Your task to perform on an android device: change the clock style Image 0: 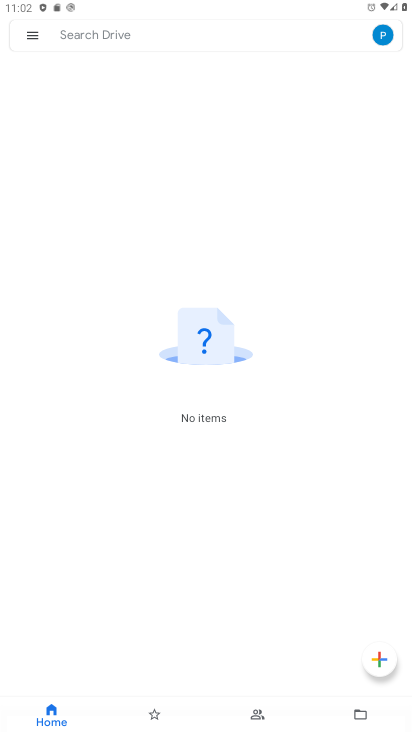
Step 0: press home button
Your task to perform on an android device: change the clock style Image 1: 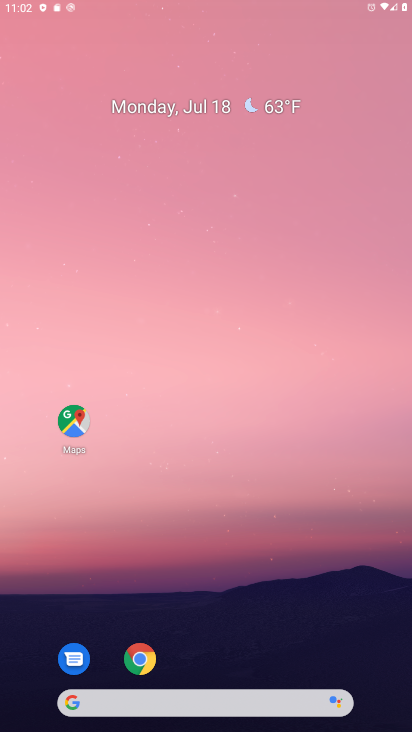
Step 1: drag from (214, 671) to (286, 133)
Your task to perform on an android device: change the clock style Image 2: 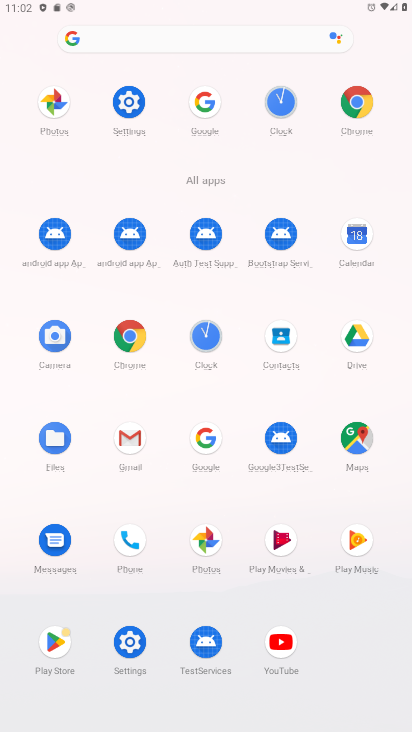
Step 2: click (204, 341)
Your task to perform on an android device: change the clock style Image 3: 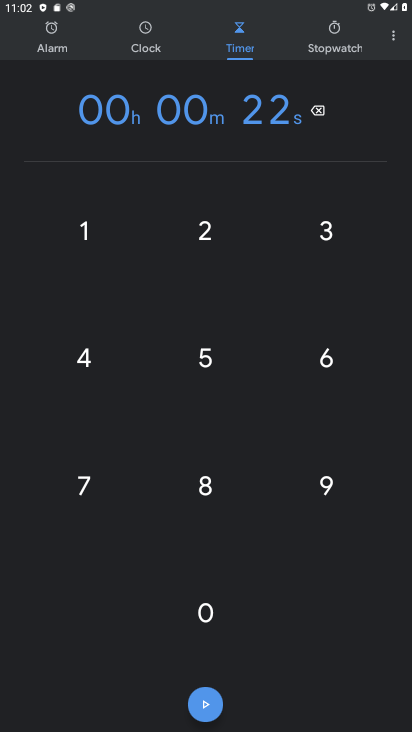
Step 3: click (394, 38)
Your task to perform on an android device: change the clock style Image 4: 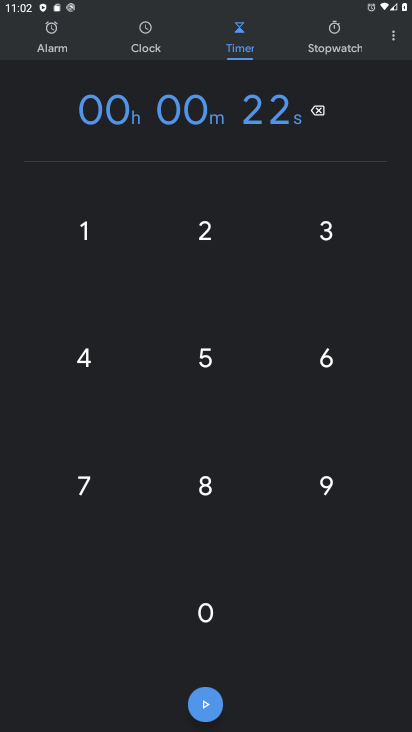
Step 4: click (387, 36)
Your task to perform on an android device: change the clock style Image 5: 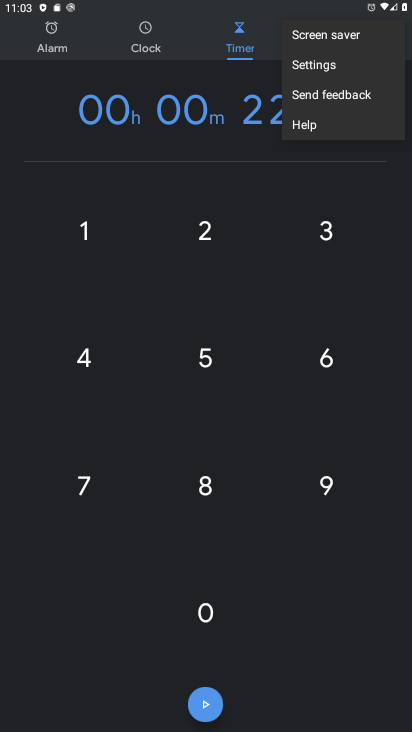
Step 5: click (334, 62)
Your task to perform on an android device: change the clock style Image 6: 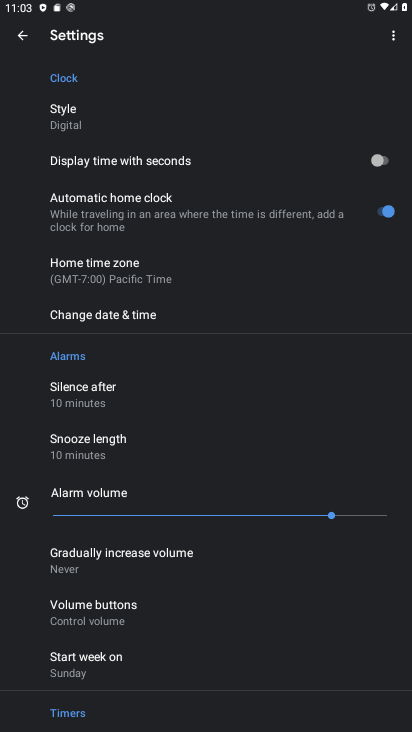
Step 6: click (127, 122)
Your task to perform on an android device: change the clock style Image 7: 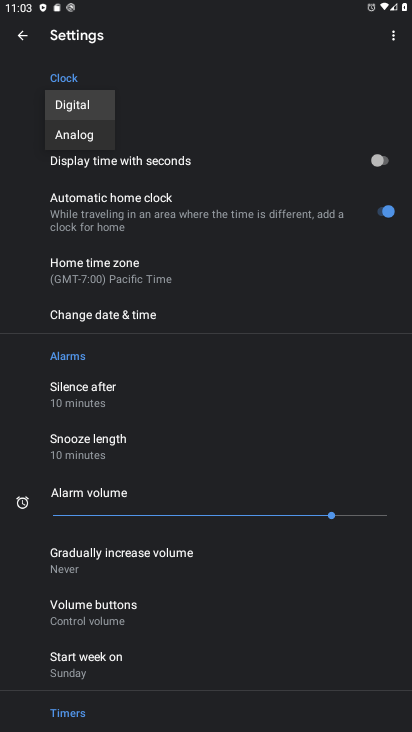
Step 7: click (78, 132)
Your task to perform on an android device: change the clock style Image 8: 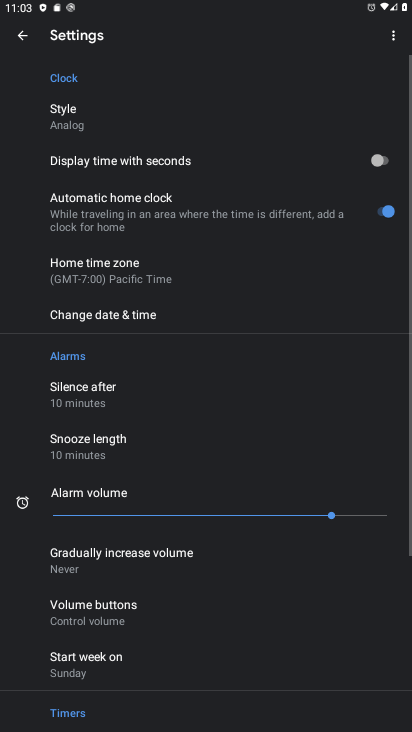
Step 8: task complete